Your task to perform on an android device: Open the calendar and show me this week's events? Image 0: 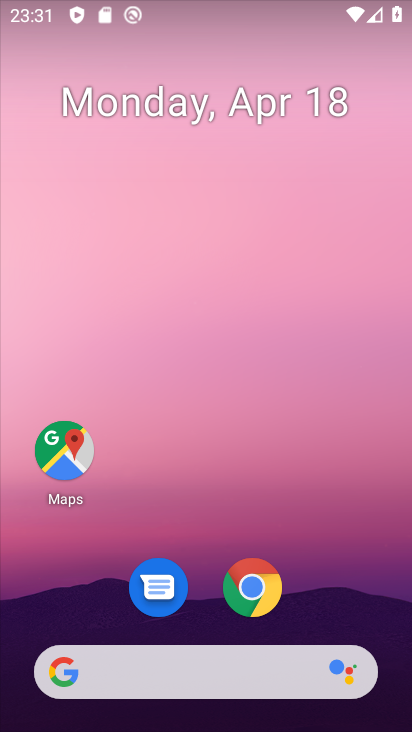
Step 0: drag from (387, 563) to (402, 163)
Your task to perform on an android device: Open the calendar and show me this week's events? Image 1: 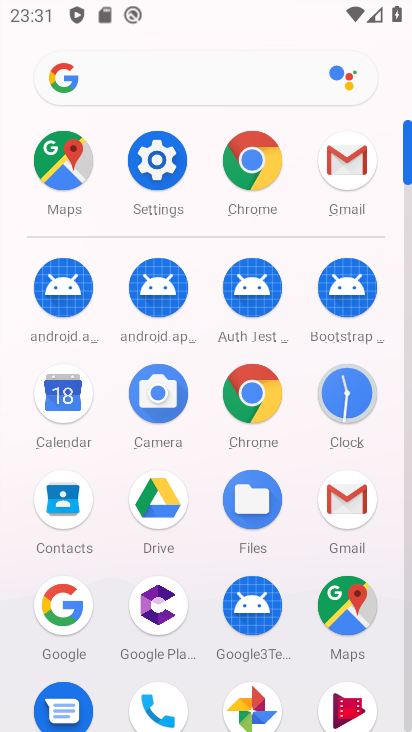
Step 1: click (66, 399)
Your task to perform on an android device: Open the calendar and show me this week's events? Image 2: 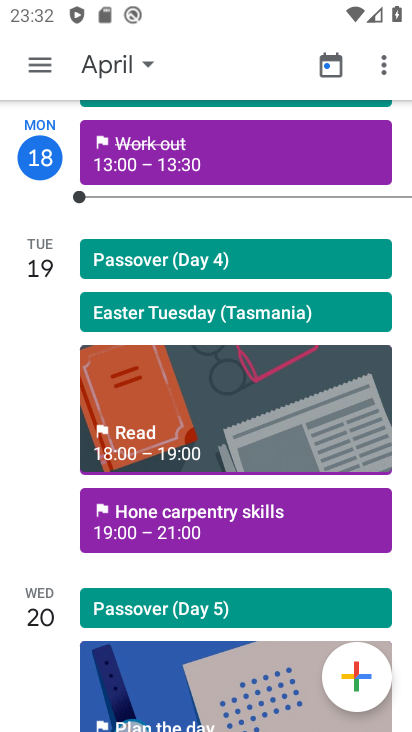
Step 2: click (116, 68)
Your task to perform on an android device: Open the calendar and show me this week's events? Image 3: 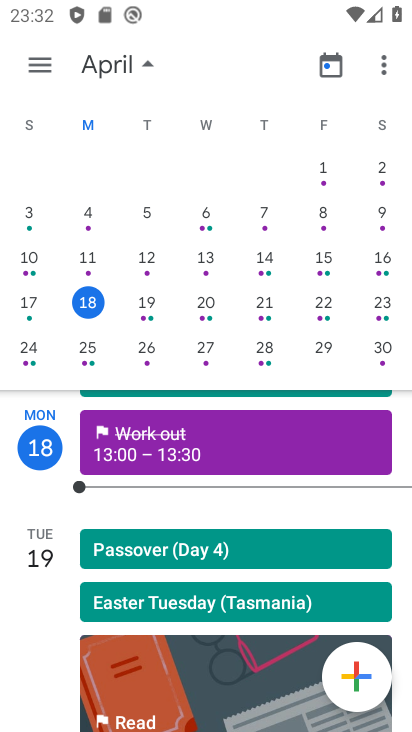
Step 3: task complete